Your task to perform on an android device: Open settings on Google Maps Image 0: 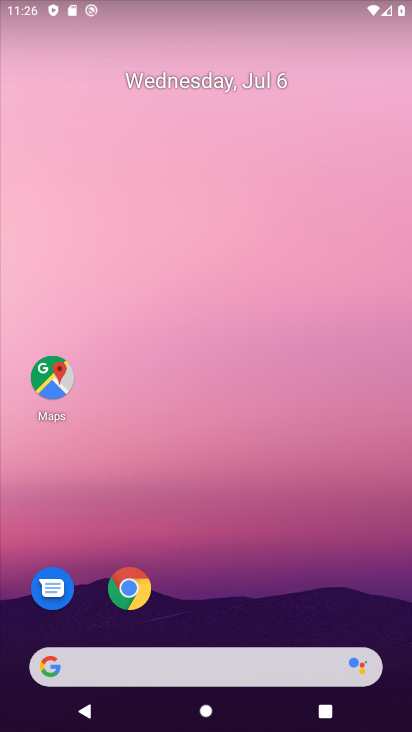
Step 0: press home button
Your task to perform on an android device: Open settings on Google Maps Image 1: 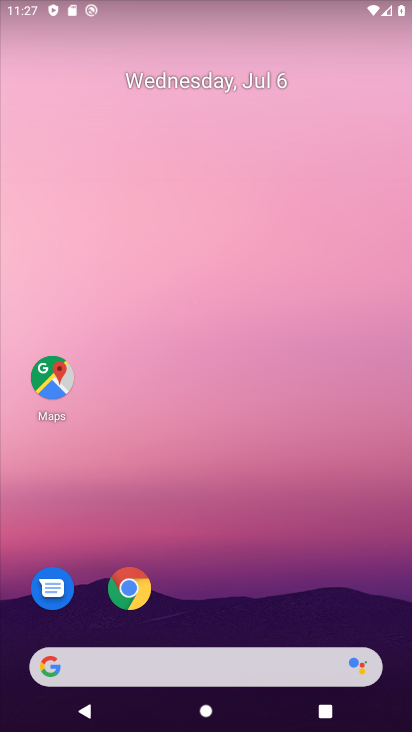
Step 1: drag from (233, 648) to (330, 147)
Your task to perform on an android device: Open settings on Google Maps Image 2: 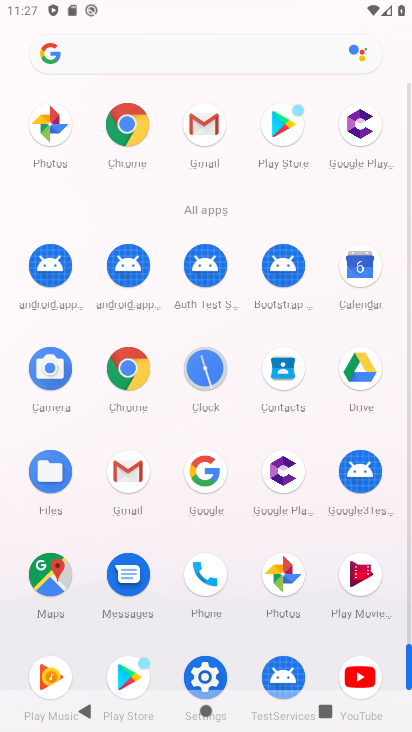
Step 2: click (57, 572)
Your task to perform on an android device: Open settings on Google Maps Image 3: 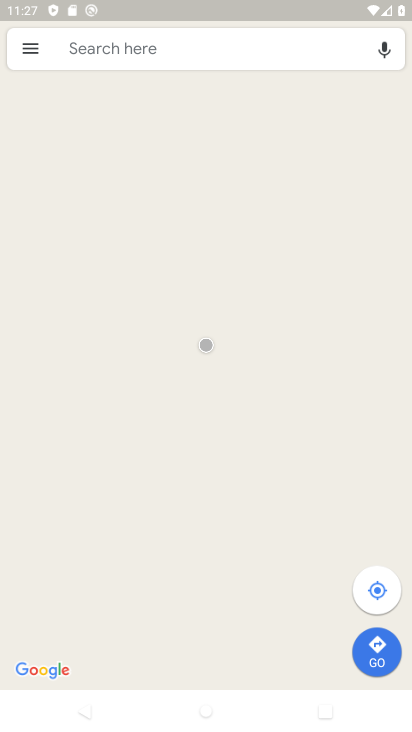
Step 3: drag from (198, 459) to (261, 243)
Your task to perform on an android device: Open settings on Google Maps Image 4: 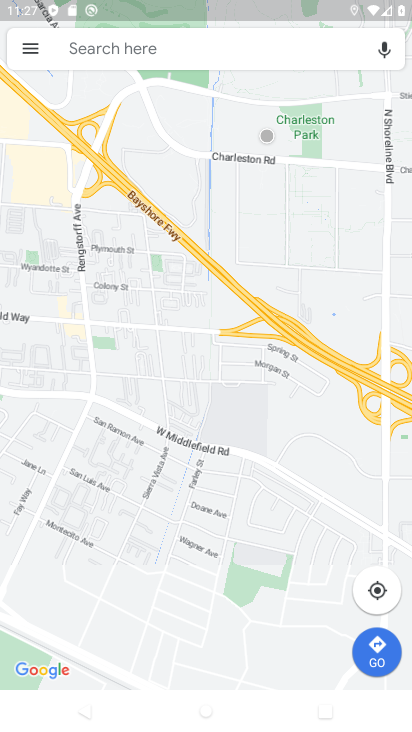
Step 4: click (29, 40)
Your task to perform on an android device: Open settings on Google Maps Image 5: 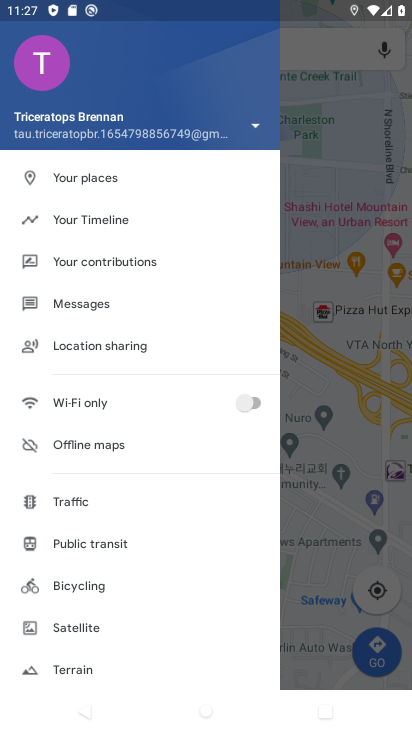
Step 5: drag from (95, 615) to (229, 163)
Your task to perform on an android device: Open settings on Google Maps Image 6: 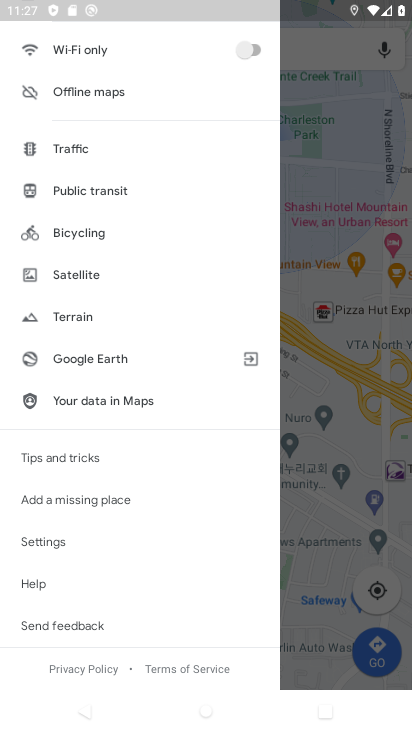
Step 6: click (64, 533)
Your task to perform on an android device: Open settings on Google Maps Image 7: 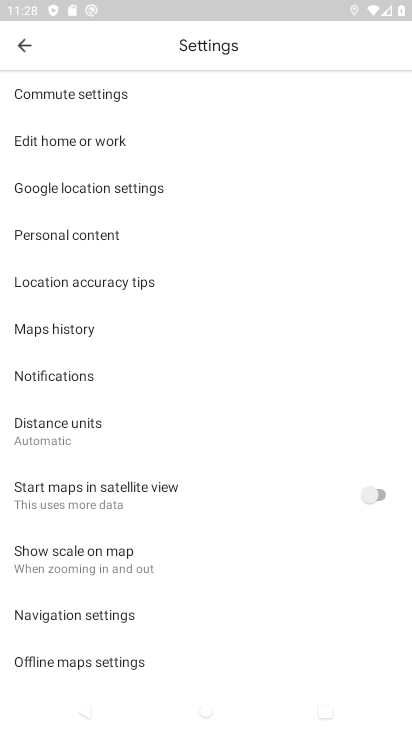
Step 7: task complete